Your task to perform on an android device: remove spam from my inbox in the gmail app Image 0: 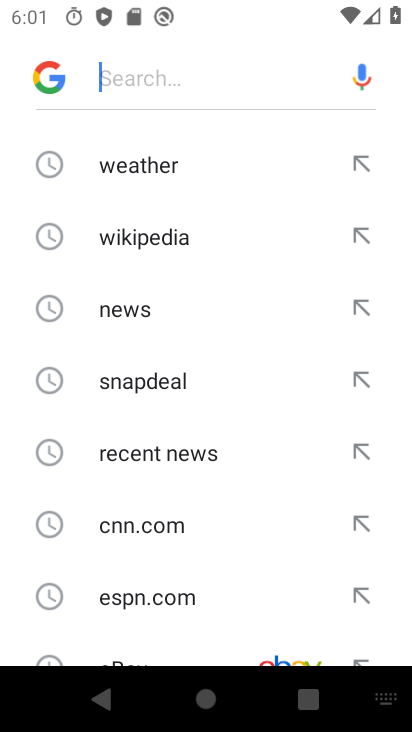
Step 0: press home button
Your task to perform on an android device: remove spam from my inbox in the gmail app Image 1: 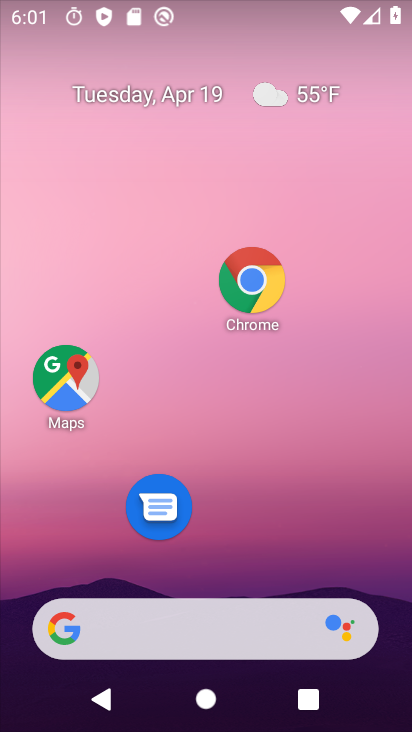
Step 1: drag from (202, 583) to (198, 242)
Your task to perform on an android device: remove spam from my inbox in the gmail app Image 2: 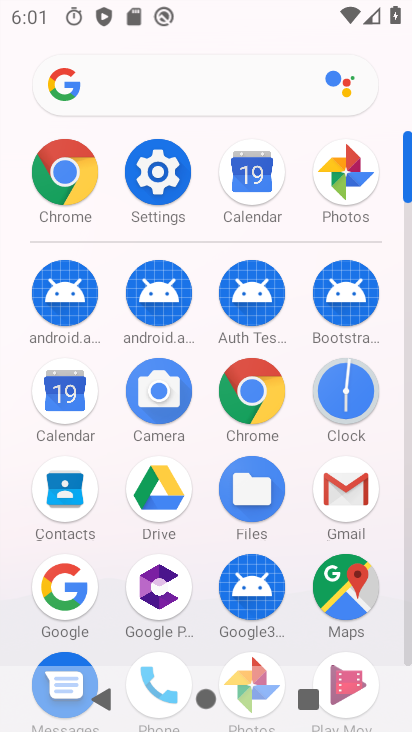
Step 2: click (353, 491)
Your task to perform on an android device: remove spam from my inbox in the gmail app Image 3: 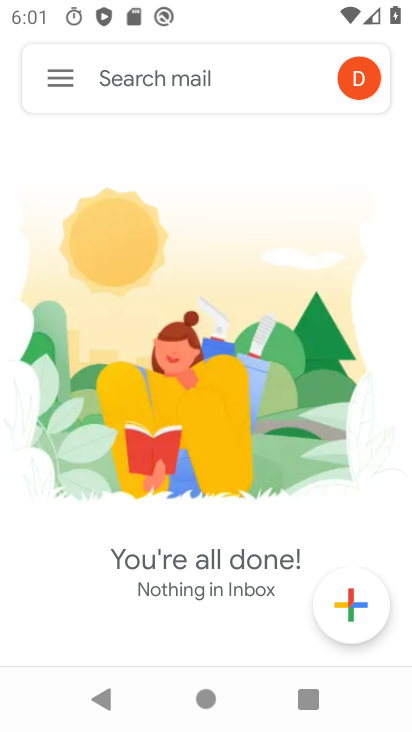
Step 3: click (64, 75)
Your task to perform on an android device: remove spam from my inbox in the gmail app Image 4: 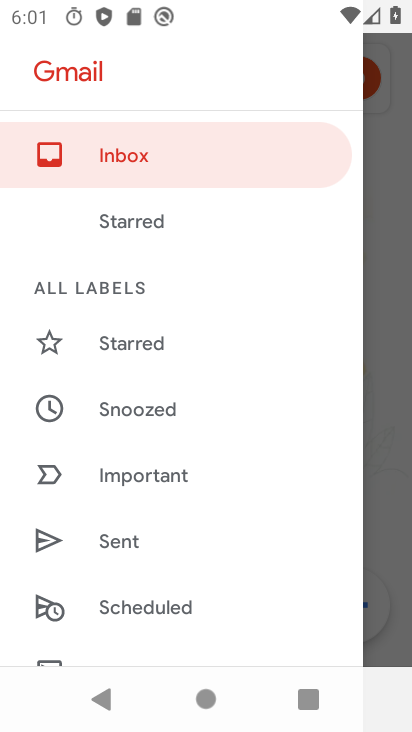
Step 4: drag from (158, 628) to (155, 252)
Your task to perform on an android device: remove spam from my inbox in the gmail app Image 5: 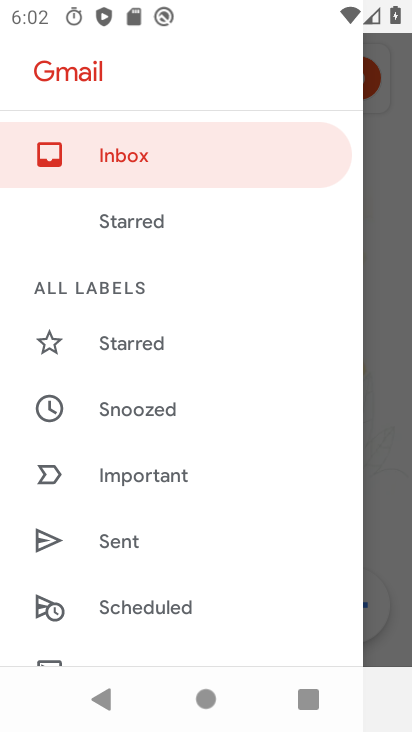
Step 5: drag from (152, 633) to (130, 290)
Your task to perform on an android device: remove spam from my inbox in the gmail app Image 6: 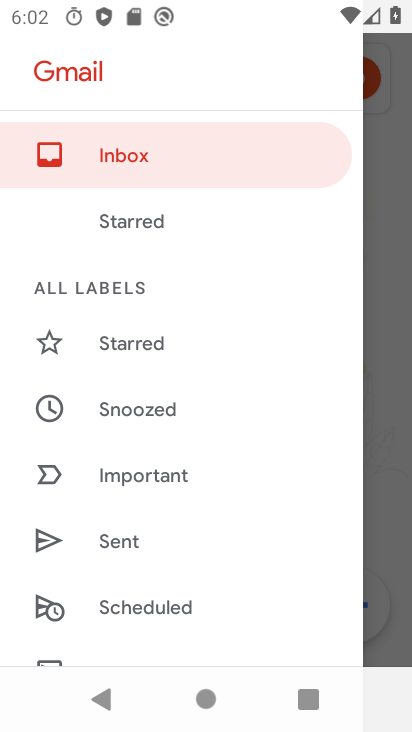
Step 6: drag from (137, 640) to (134, 293)
Your task to perform on an android device: remove spam from my inbox in the gmail app Image 7: 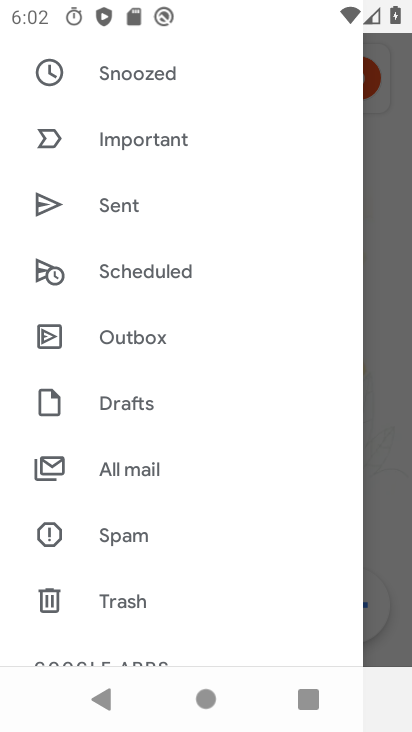
Step 7: drag from (132, 622) to (146, 349)
Your task to perform on an android device: remove spam from my inbox in the gmail app Image 8: 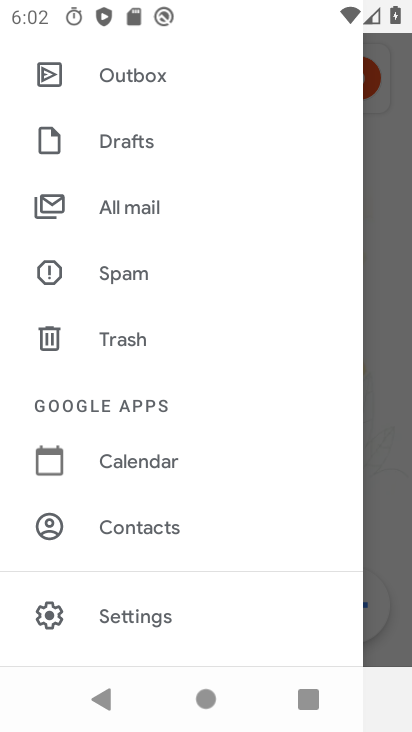
Step 8: click (143, 270)
Your task to perform on an android device: remove spam from my inbox in the gmail app Image 9: 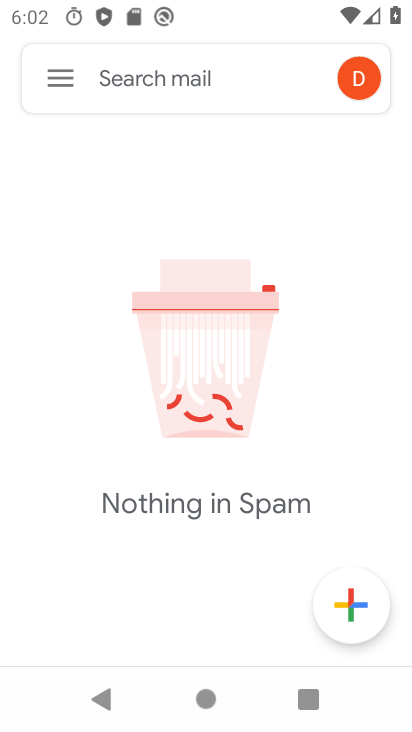
Step 9: task complete